Your task to perform on an android device: What's the weather today? Image 0: 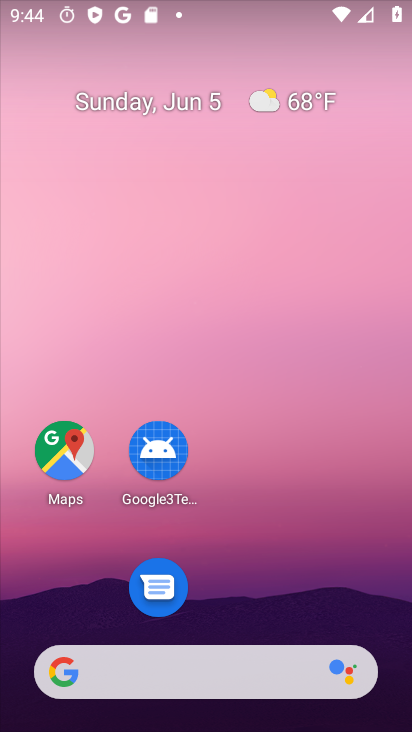
Step 0: click (210, 662)
Your task to perform on an android device: What's the weather today? Image 1: 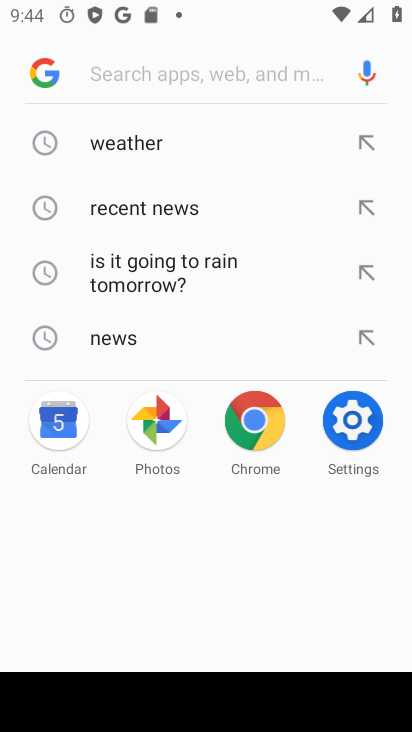
Step 1: click (270, 75)
Your task to perform on an android device: What's the weather today? Image 2: 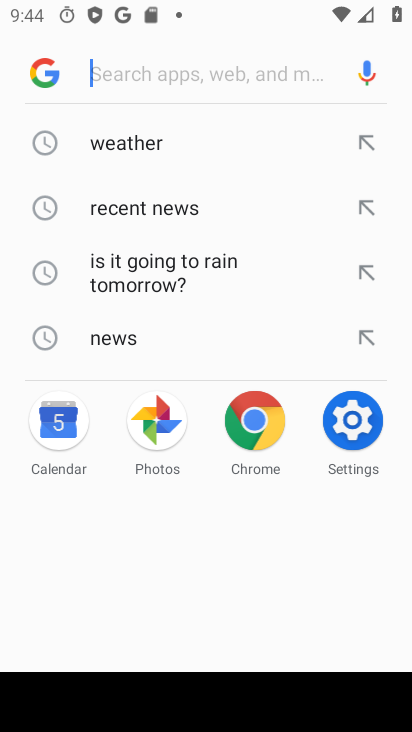
Step 2: click (127, 142)
Your task to perform on an android device: What's the weather today? Image 3: 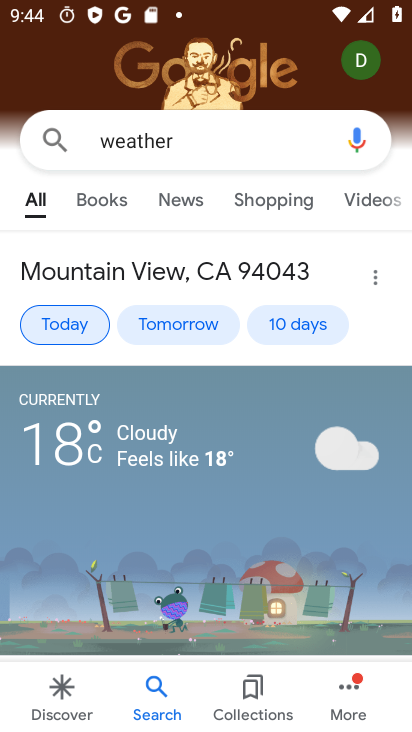
Step 3: task complete